Your task to perform on an android device: stop showing notifications on the lock screen Image 0: 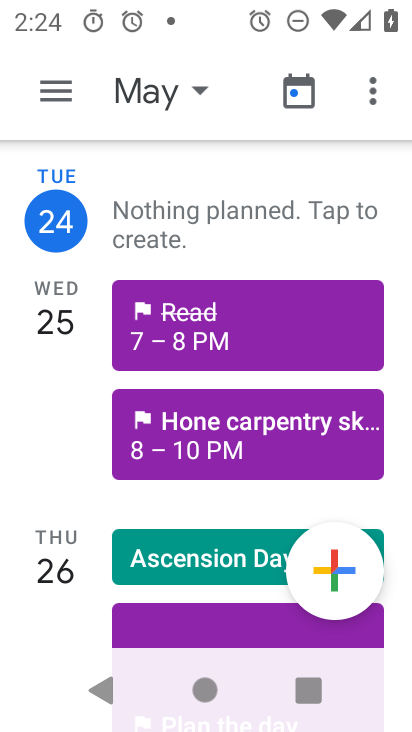
Step 0: press home button
Your task to perform on an android device: stop showing notifications on the lock screen Image 1: 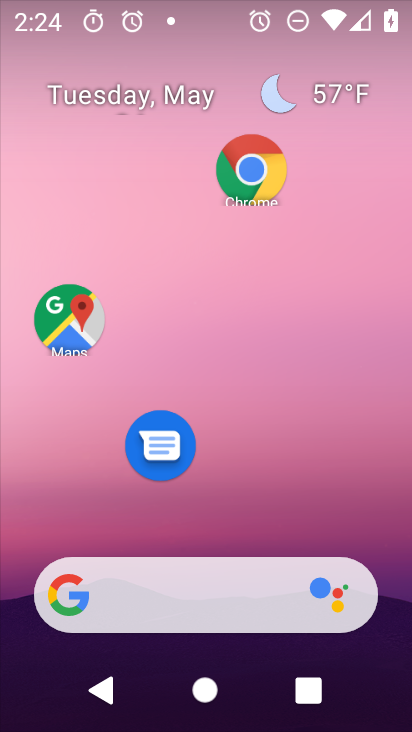
Step 1: drag from (227, 728) to (227, 194)
Your task to perform on an android device: stop showing notifications on the lock screen Image 2: 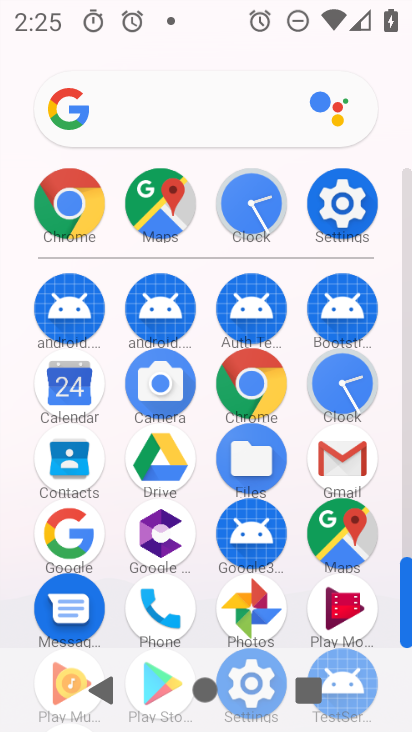
Step 2: click (348, 210)
Your task to perform on an android device: stop showing notifications on the lock screen Image 3: 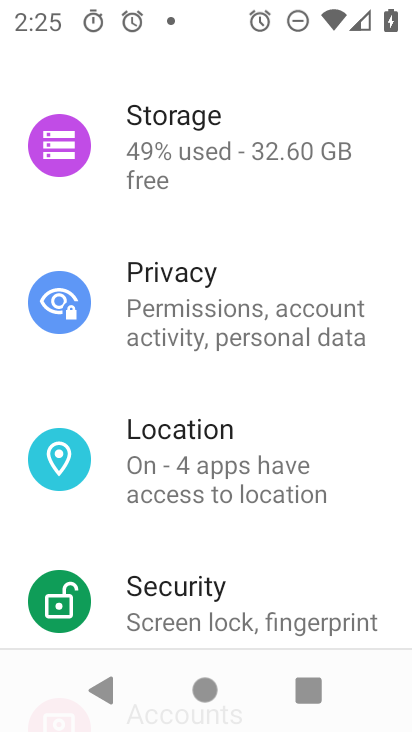
Step 3: drag from (222, 151) to (213, 486)
Your task to perform on an android device: stop showing notifications on the lock screen Image 4: 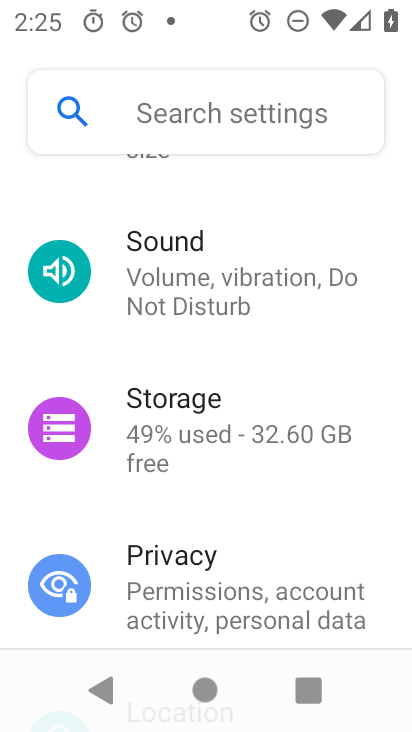
Step 4: drag from (234, 196) to (223, 518)
Your task to perform on an android device: stop showing notifications on the lock screen Image 5: 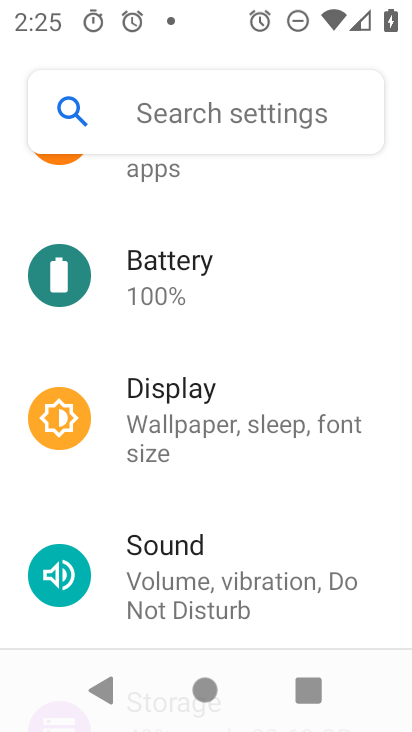
Step 5: drag from (209, 223) to (197, 595)
Your task to perform on an android device: stop showing notifications on the lock screen Image 6: 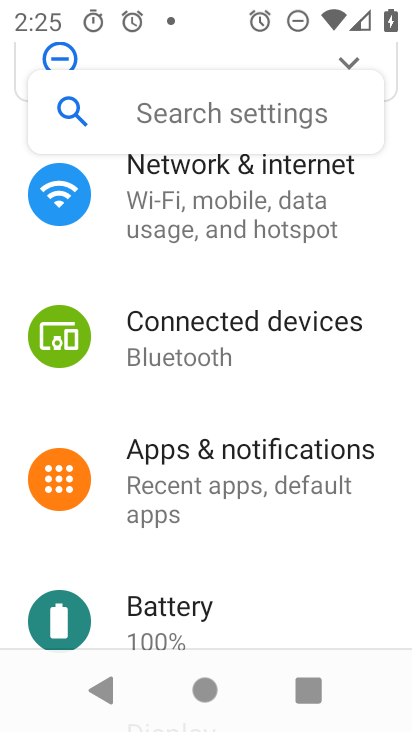
Step 6: click (204, 476)
Your task to perform on an android device: stop showing notifications on the lock screen Image 7: 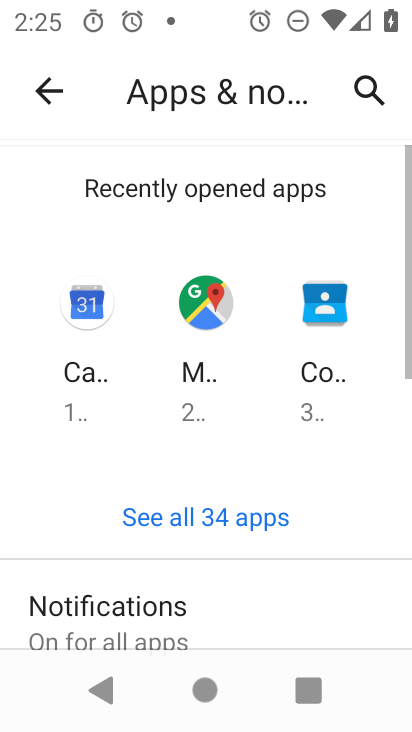
Step 7: drag from (199, 626) to (190, 199)
Your task to perform on an android device: stop showing notifications on the lock screen Image 8: 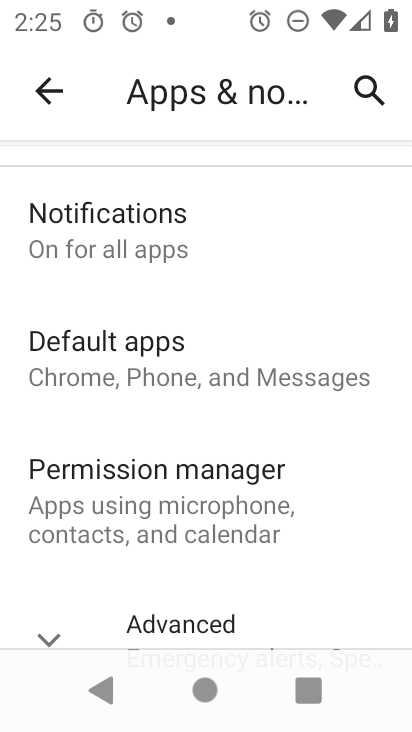
Step 8: click (132, 235)
Your task to perform on an android device: stop showing notifications on the lock screen Image 9: 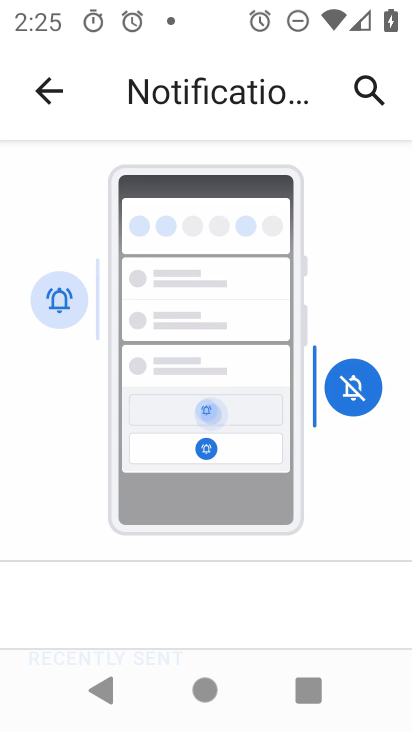
Step 9: drag from (242, 626) to (263, 186)
Your task to perform on an android device: stop showing notifications on the lock screen Image 10: 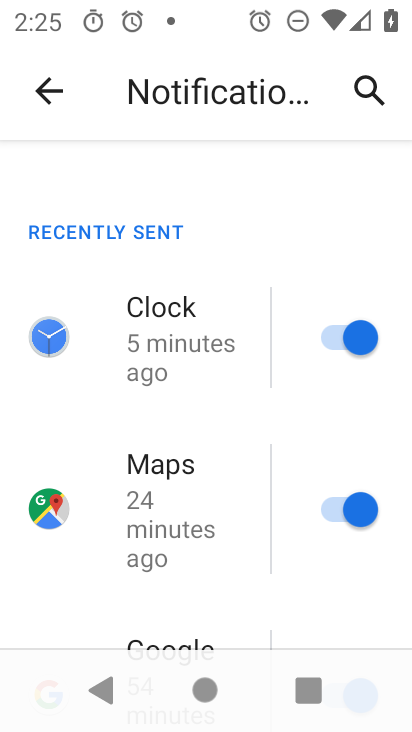
Step 10: drag from (239, 598) to (239, 322)
Your task to perform on an android device: stop showing notifications on the lock screen Image 11: 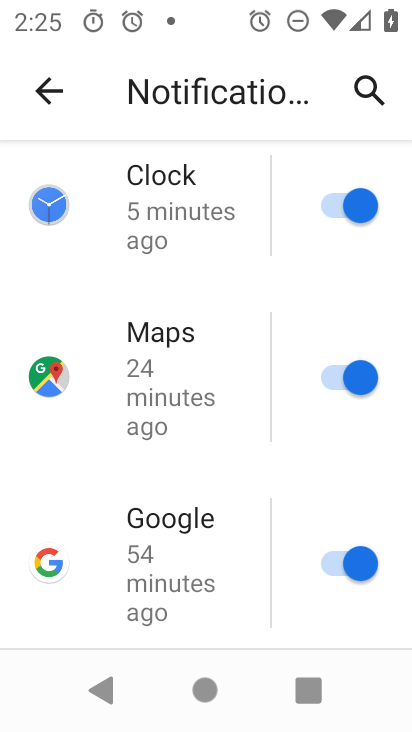
Step 11: drag from (247, 580) to (247, 251)
Your task to perform on an android device: stop showing notifications on the lock screen Image 12: 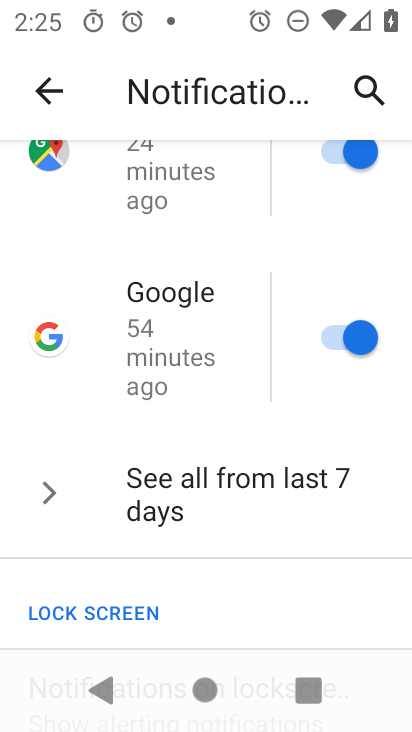
Step 12: drag from (232, 612) to (236, 251)
Your task to perform on an android device: stop showing notifications on the lock screen Image 13: 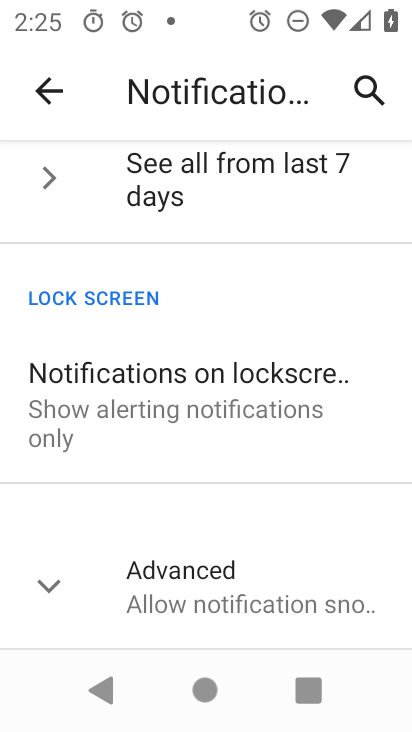
Step 13: click (190, 399)
Your task to perform on an android device: stop showing notifications on the lock screen Image 14: 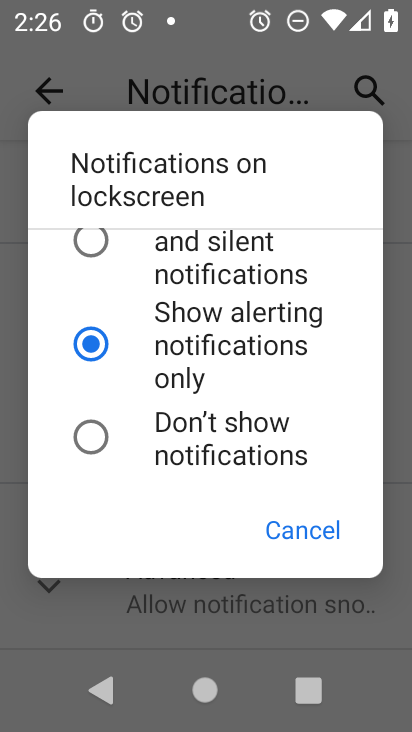
Step 14: click (85, 432)
Your task to perform on an android device: stop showing notifications on the lock screen Image 15: 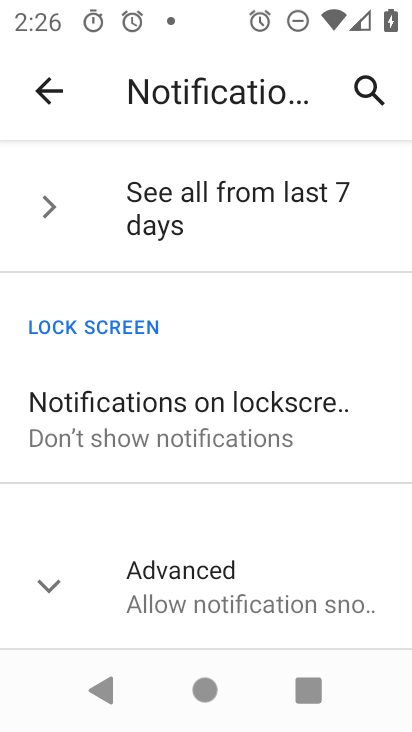
Step 15: task complete